Your task to perform on an android device: toggle data saver in the chrome app Image 0: 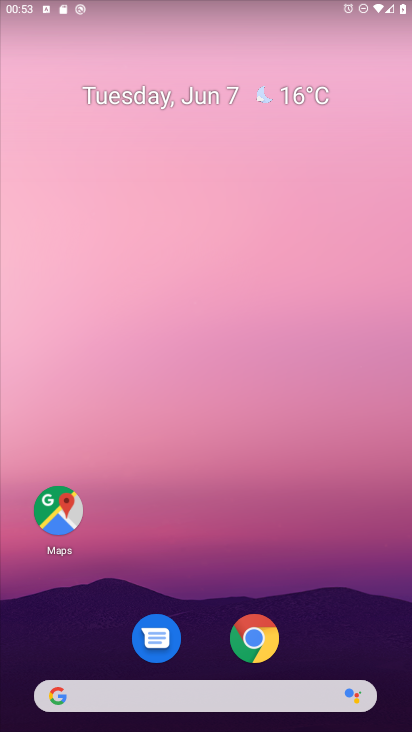
Step 0: drag from (212, 627) to (218, 164)
Your task to perform on an android device: toggle data saver in the chrome app Image 1: 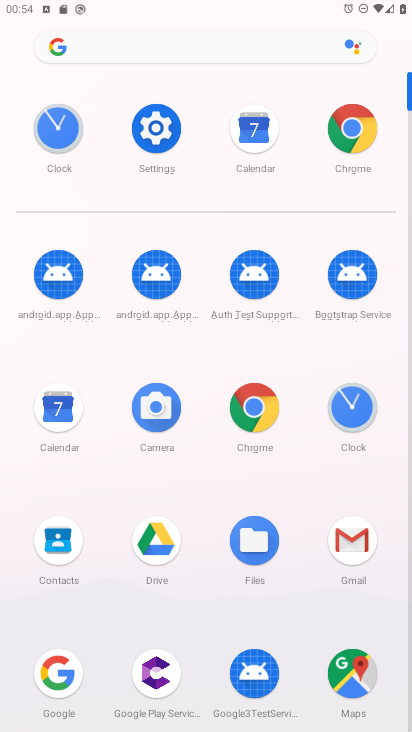
Step 1: click (357, 136)
Your task to perform on an android device: toggle data saver in the chrome app Image 2: 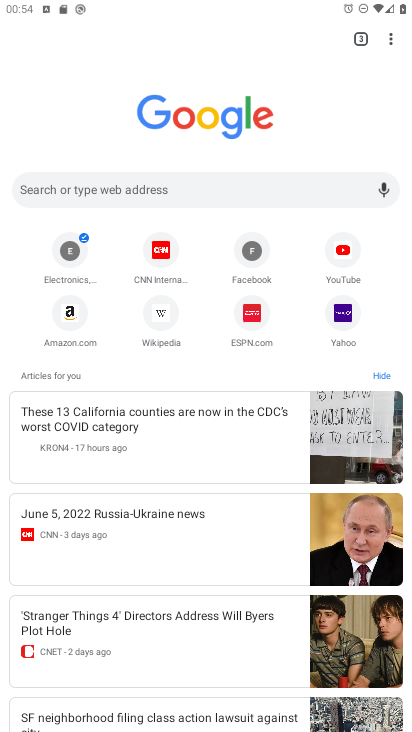
Step 2: click (387, 44)
Your task to perform on an android device: toggle data saver in the chrome app Image 3: 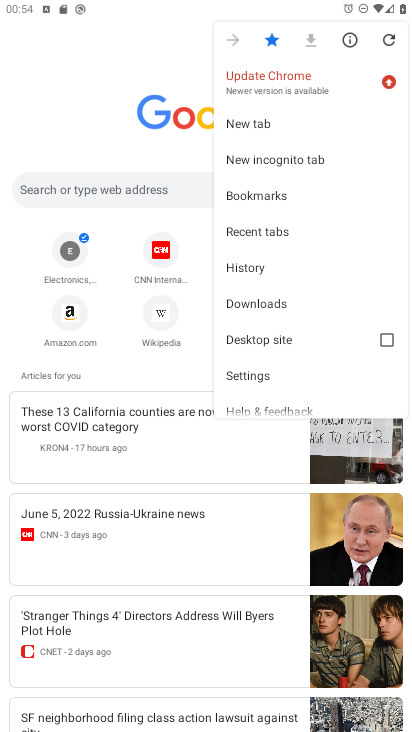
Step 3: click (240, 368)
Your task to perform on an android device: toggle data saver in the chrome app Image 4: 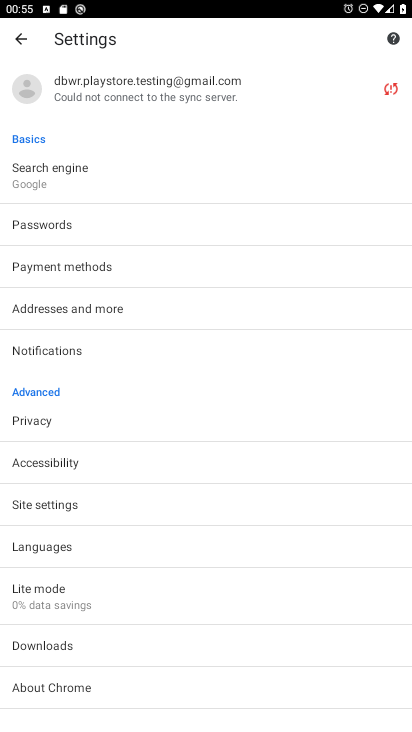
Step 4: click (62, 598)
Your task to perform on an android device: toggle data saver in the chrome app Image 5: 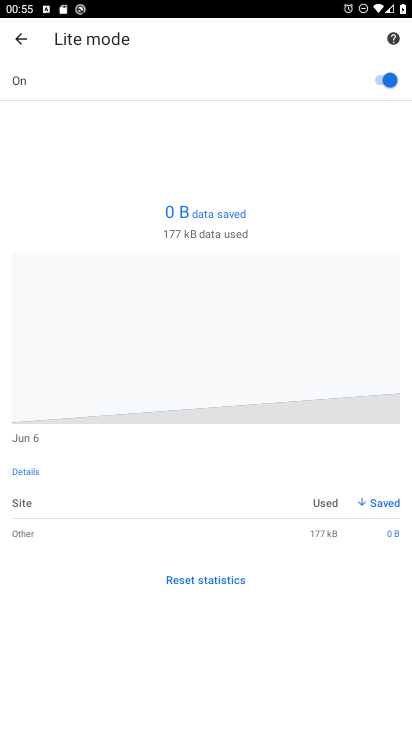
Step 5: task complete